Your task to perform on an android device: Open Google Maps Image 0: 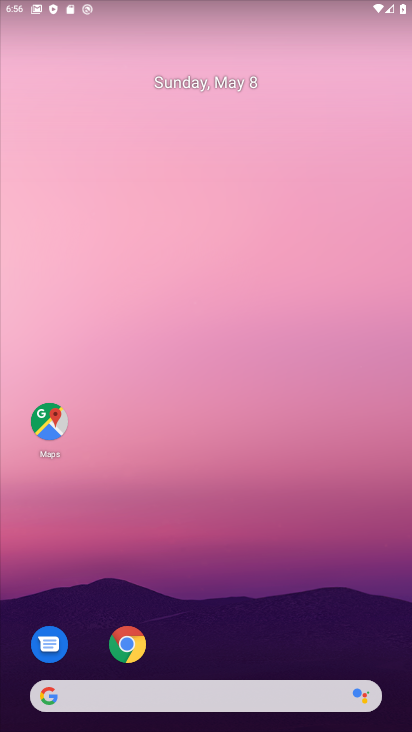
Step 0: drag from (313, 659) to (344, 272)
Your task to perform on an android device: Open Google Maps Image 1: 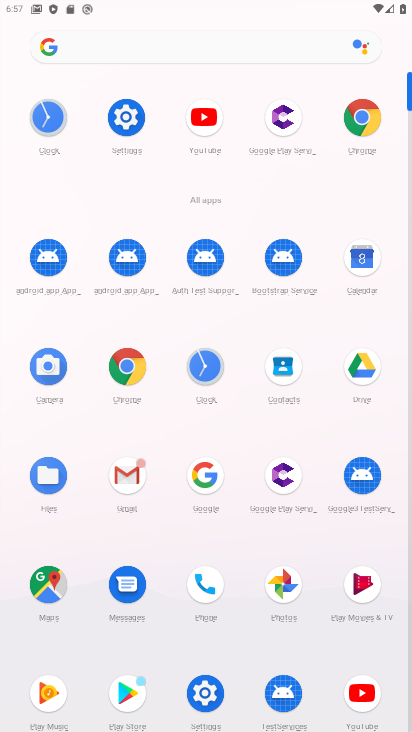
Step 1: click (39, 580)
Your task to perform on an android device: Open Google Maps Image 2: 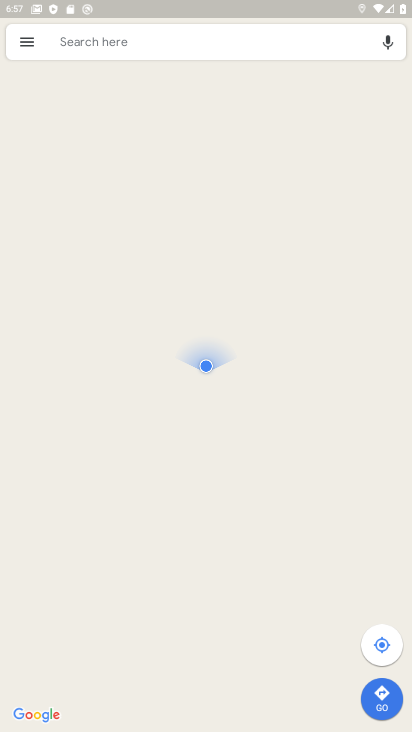
Step 2: click (35, 583)
Your task to perform on an android device: Open Google Maps Image 3: 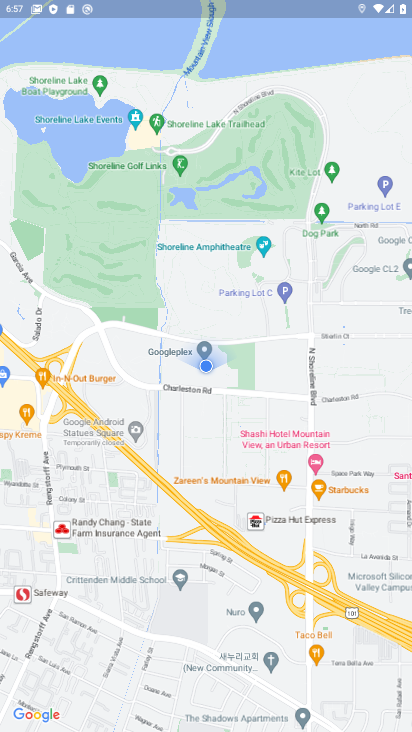
Step 3: task complete